Your task to perform on an android device: all mails in gmail Image 0: 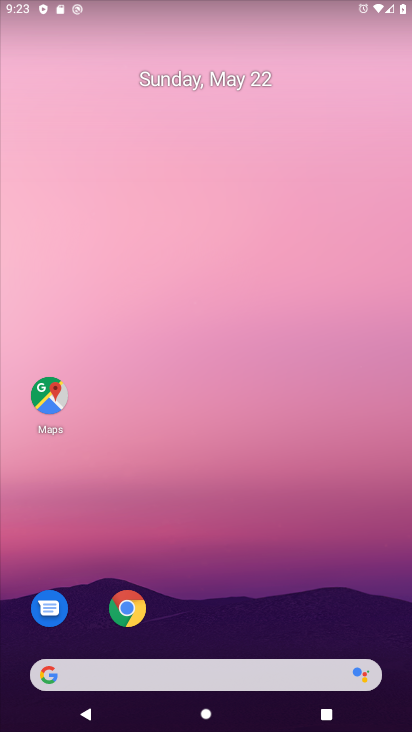
Step 0: drag from (211, 545) to (206, 37)
Your task to perform on an android device: all mails in gmail Image 1: 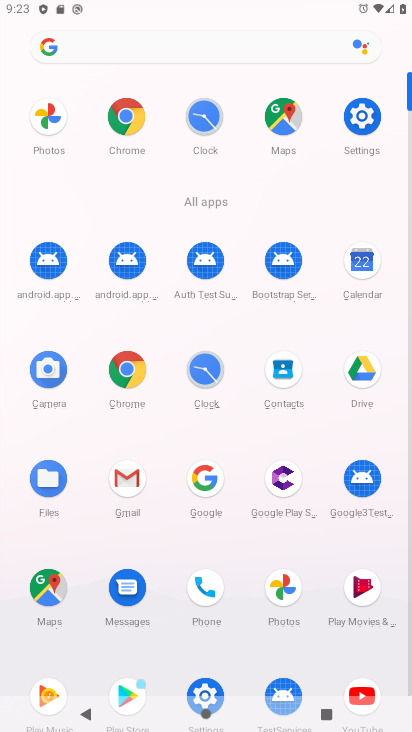
Step 1: click (126, 474)
Your task to perform on an android device: all mails in gmail Image 2: 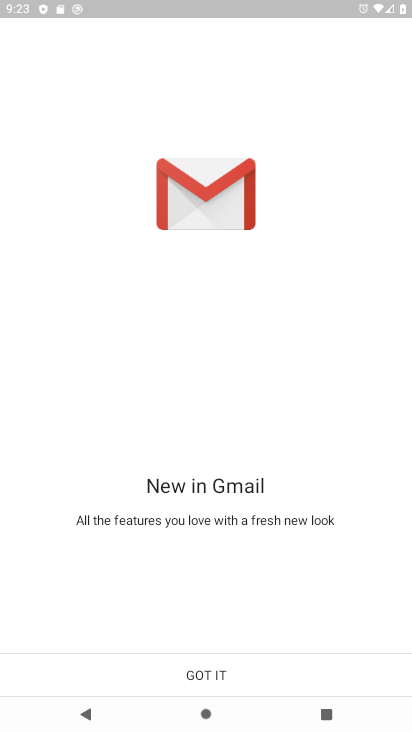
Step 2: click (200, 657)
Your task to perform on an android device: all mails in gmail Image 3: 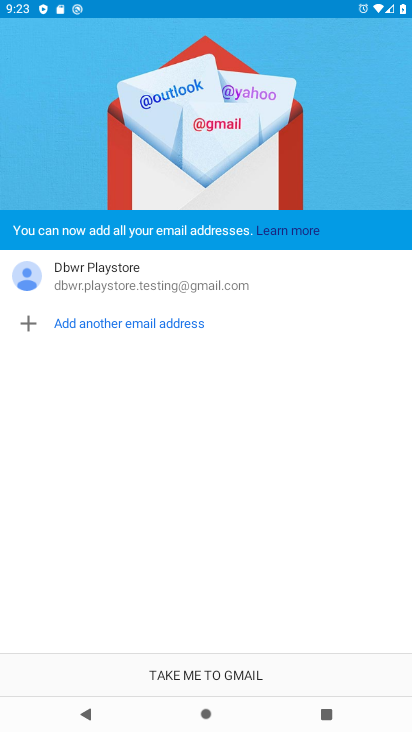
Step 3: click (198, 673)
Your task to perform on an android device: all mails in gmail Image 4: 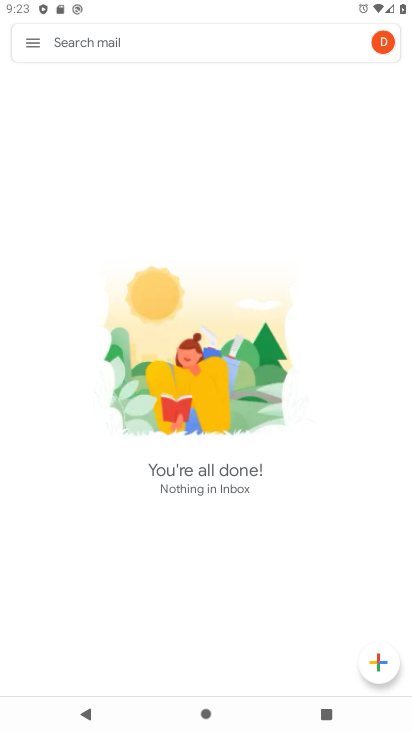
Step 4: click (25, 27)
Your task to perform on an android device: all mails in gmail Image 5: 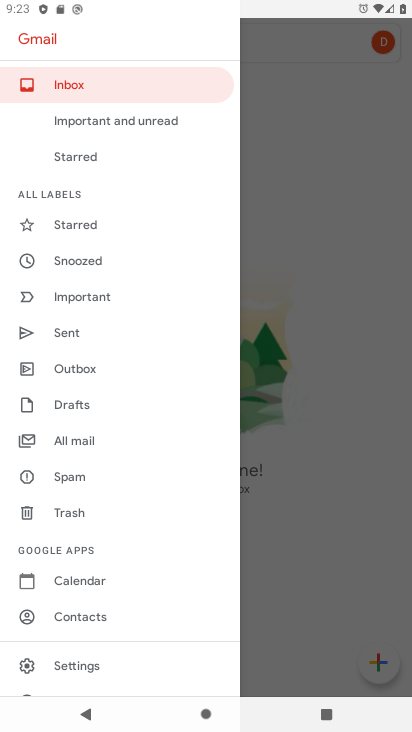
Step 5: drag from (142, 577) to (142, 171)
Your task to perform on an android device: all mails in gmail Image 6: 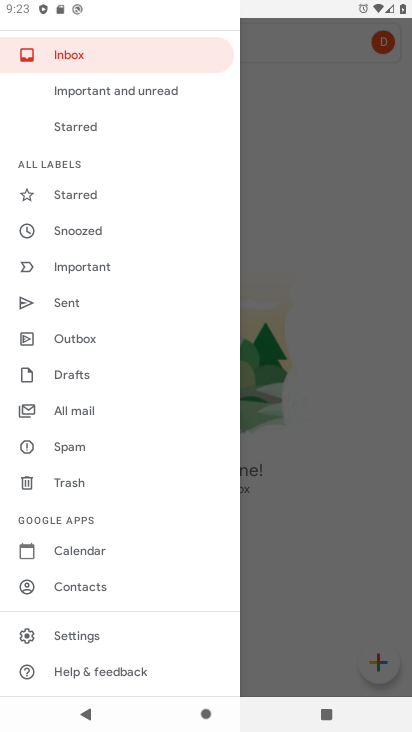
Step 6: click (87, 411)
Your task to perform on an android device: all mails in gmail Image 7: 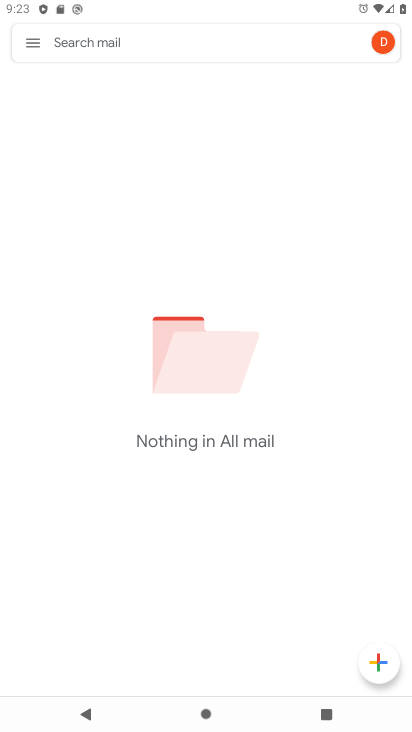
Step 7: task complete